Your task to perform on an android device: change the clock display to digital Image 0: 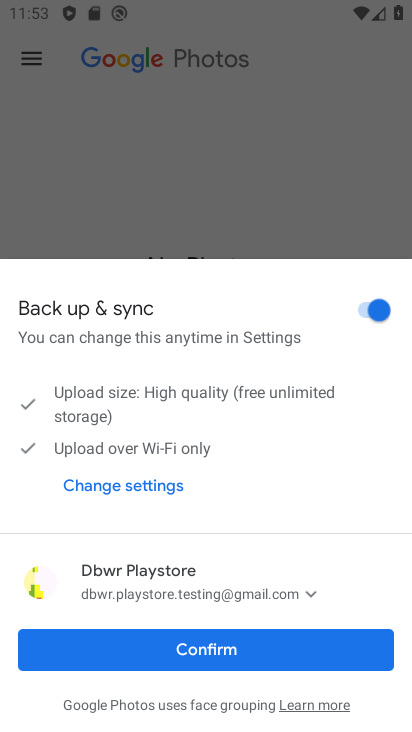
Step 0: click (276, 637)
Your task to perform on an android device: change the clock display to digital Image 1: 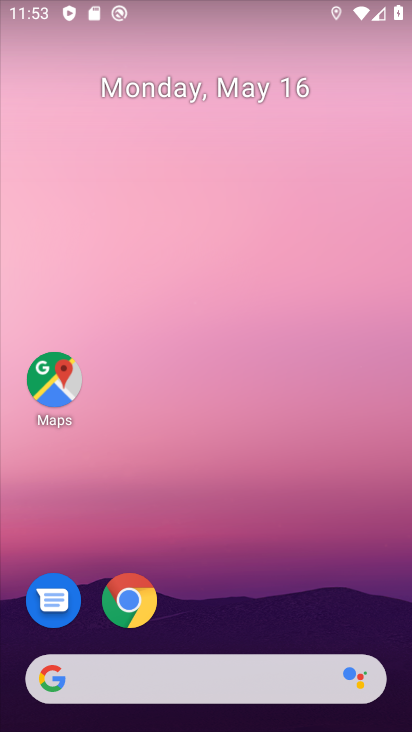
Step 1: drag from (263, 636) to (245, 54)
Your task to perform on an android device: change the clock display to digital Image 2: 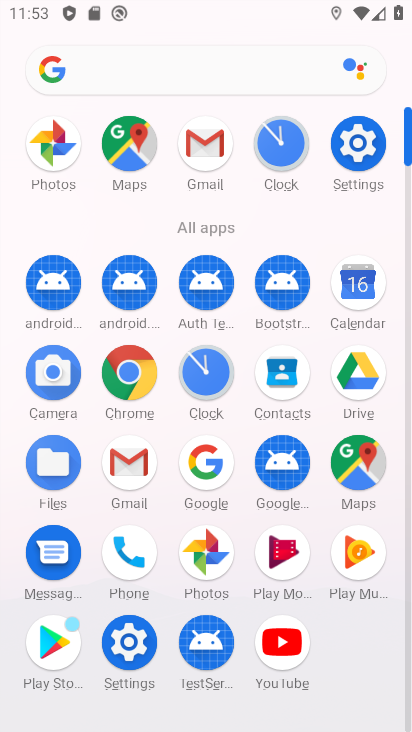
Step 2: click (291, 144)
Your task to perform on an android device: change the clock display to digital Image 3: 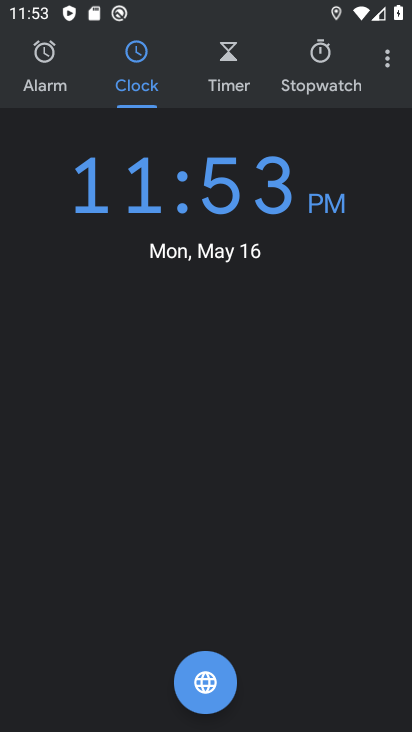
Step 3: click (391, 66)
Your task to perform on an android device: change the clock display to digital Image 4: 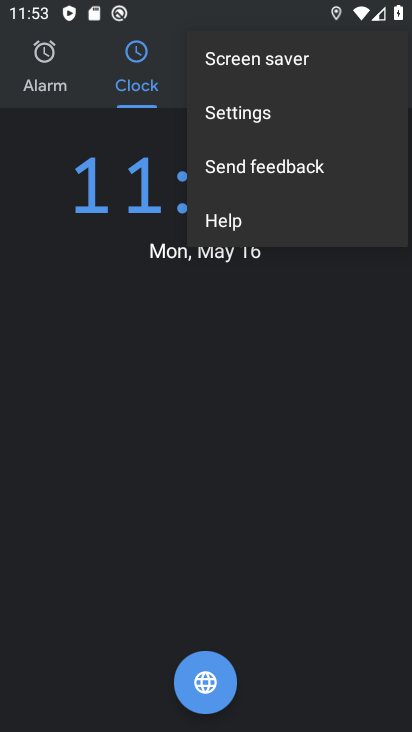
Step 4: click (347, 115)
Your task to perform on an android device: change the clock display to digital Image 5: 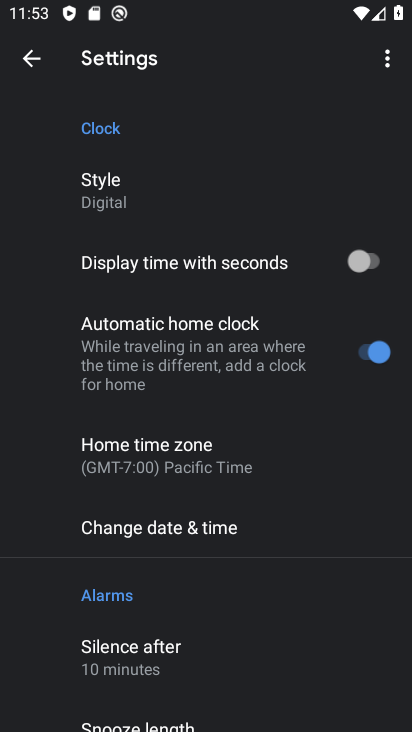
Step 5: click (245, 215)
Your task to perform on an android device: change the clock display to digital Image 6: 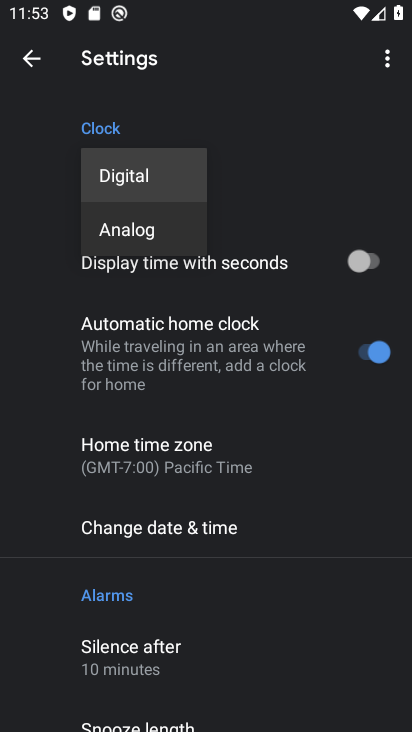
Step 6: click (192, 183)
Your task to perform on an android device: change the clock display to digital Image 7: 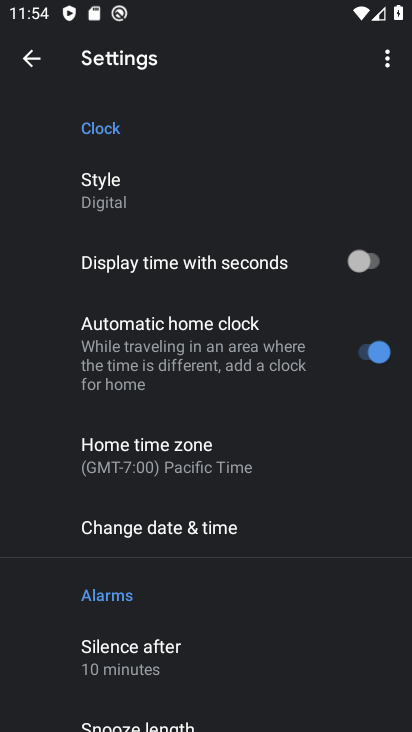
Step 7: task complete